Your task to perform on an android device: stop showing notifications on the lock screen Image 0: 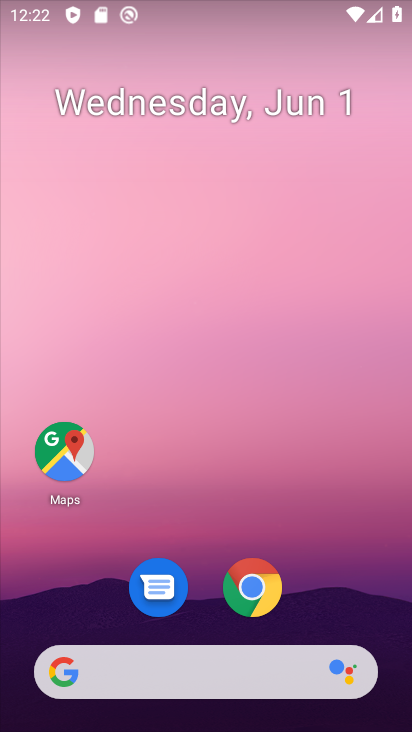
Step 0: drag from (306, 573) to (195, 99)
Your task to perform on an android device: stop showing notifications on the lock screen Image 1: 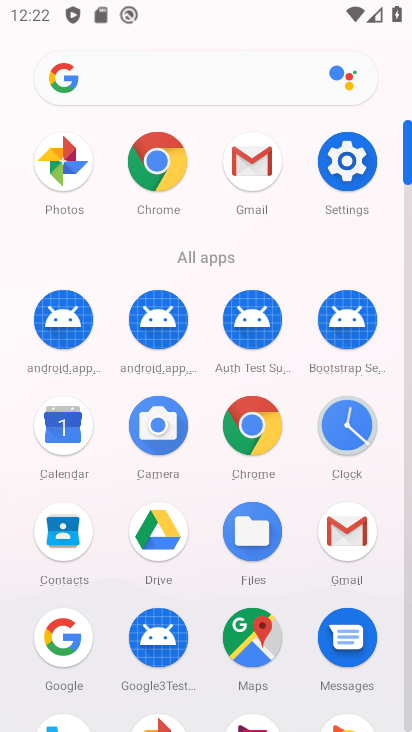
Step 1: click (352, 160)
Your task to perform on an android device: stop showing notifications on the lock screen Image 2: 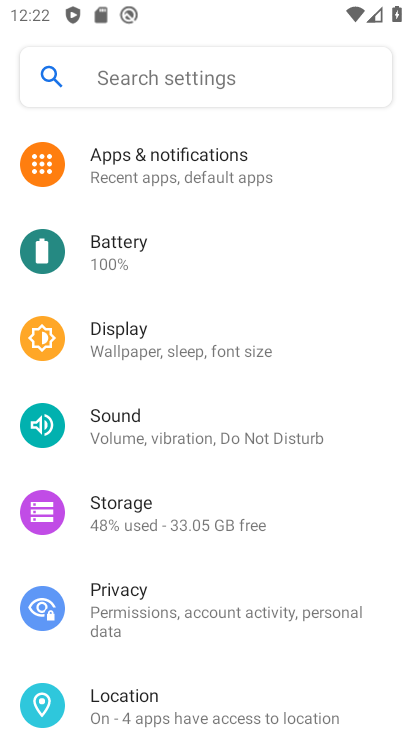
Step 2: click (164, 152)
Your task to perform on an android device: stop showing notifications on the lock screen Image 3: 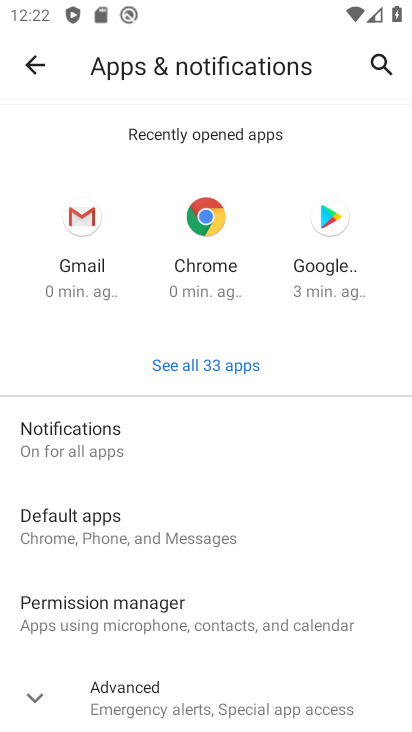
Step 3: click (79, 425)
Your task to perform on an android device: stop showing notifications on the lock screen Image 4: 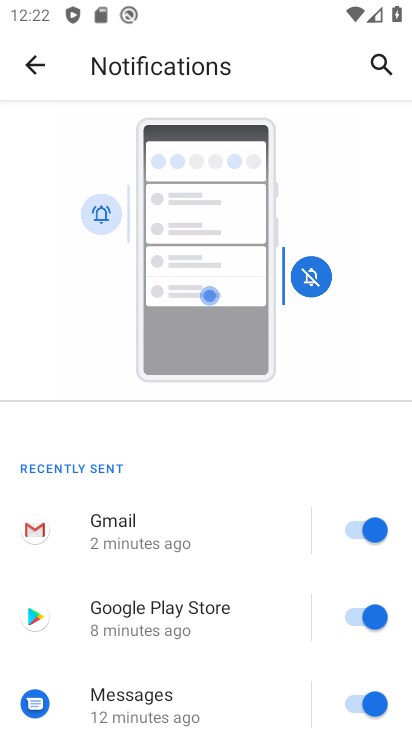
Step 4: drag from (228, 551) to (261, 245)
Your task to perform on an android device: stop showing notifications on the lock screen Image 5: 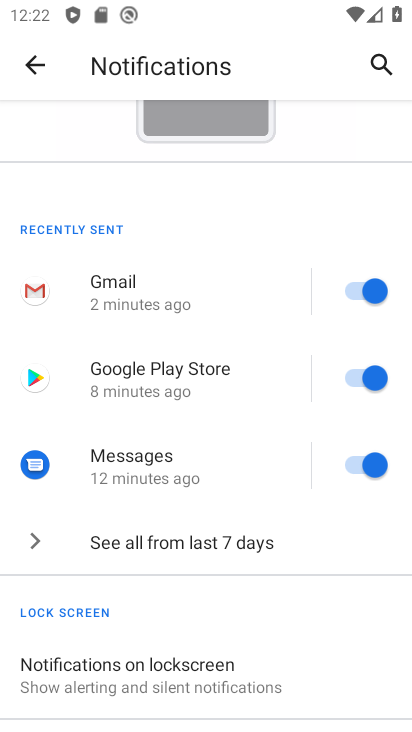
Step 5: click (119, 659)
Your task to perform on an android device: stop showing notifications on the lock screen Image 6: 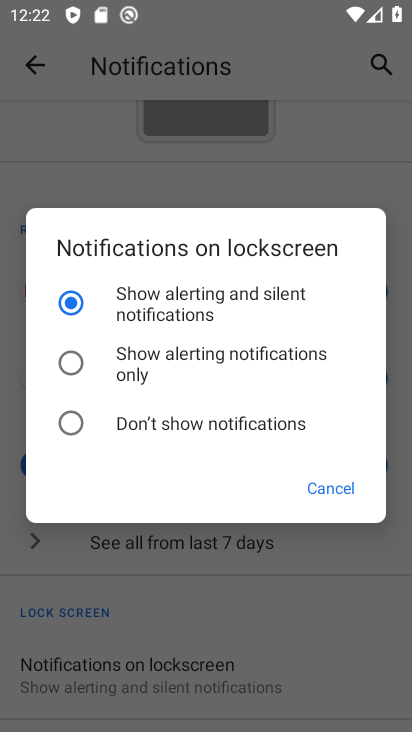
Step 6: click (65, 419)
Your task to perform on an android device: stop showing notifications on the lock screen Image 7: 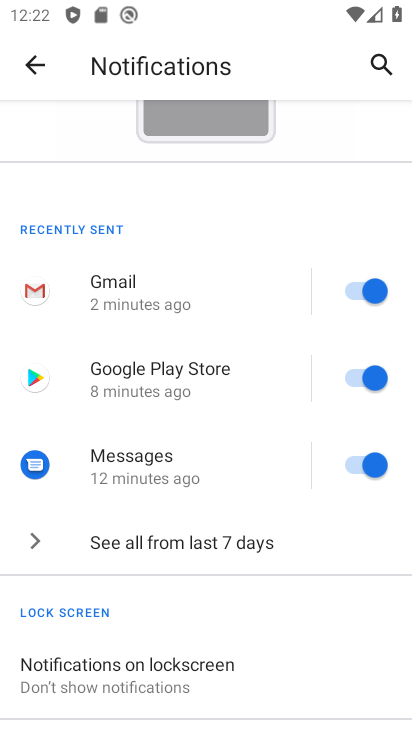
Step 7: task complete